Your task to perform on an android device: read, delete, or share a saved page in the chrome app Image 0: 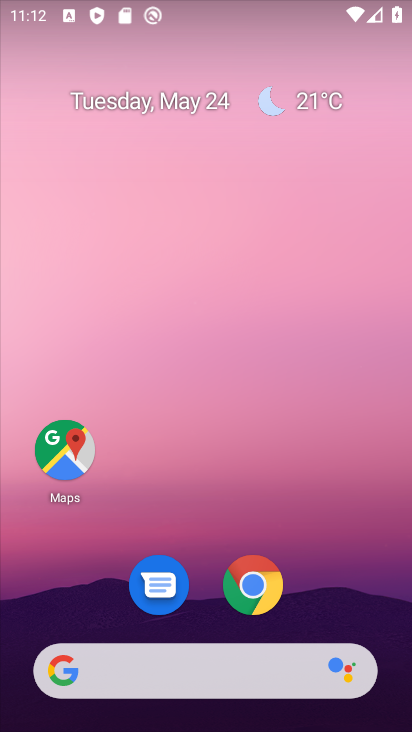
Step 0: click (250, 589)
Your task to perform on an android device: read, delete, or share a saved page in the chrome app Image 1: 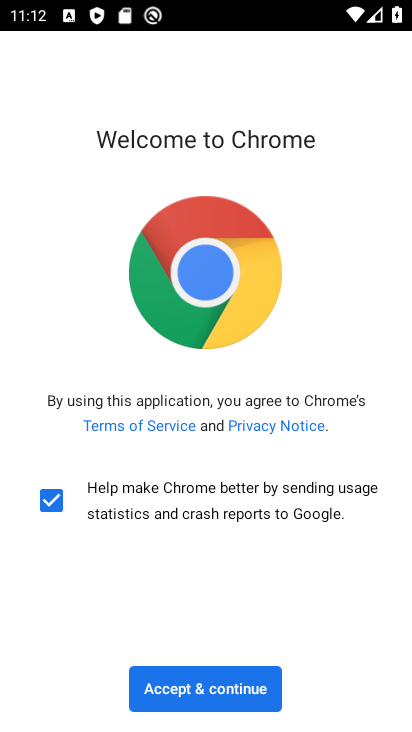
Step 1: click (243, 672)
Your task to perform on an android device: read, delete, or share a saved page in the chrome app Image 2: 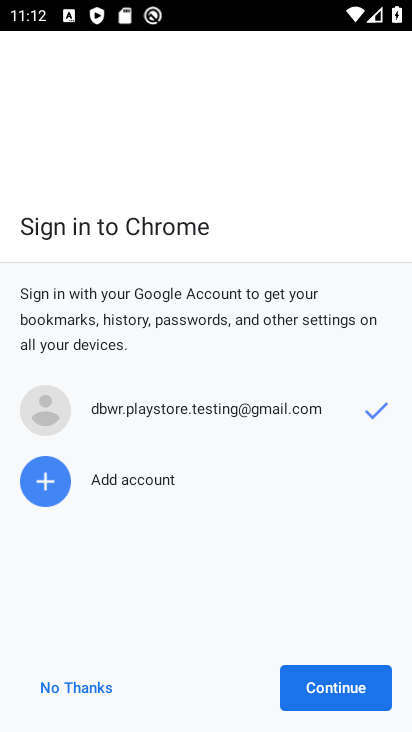
Step 2: click (321, 682)
Your task to perform on an android device: read, delete, or share a saved page in the chrome app Image 3: 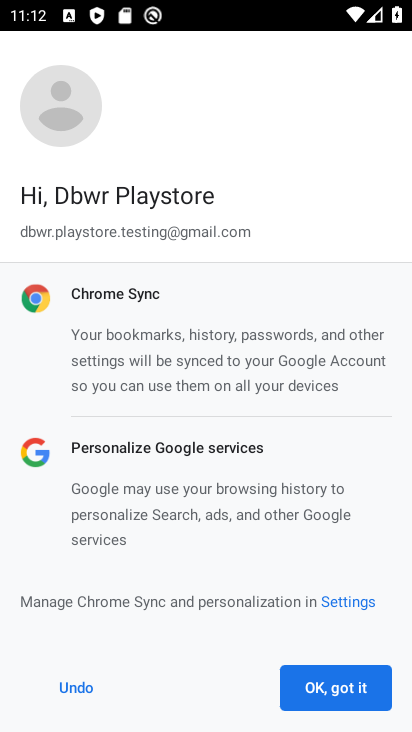
Step 3: click (321, 682)
Your task to perform on an android device: read, delete, or share a saved page in the chrome app Image 4: 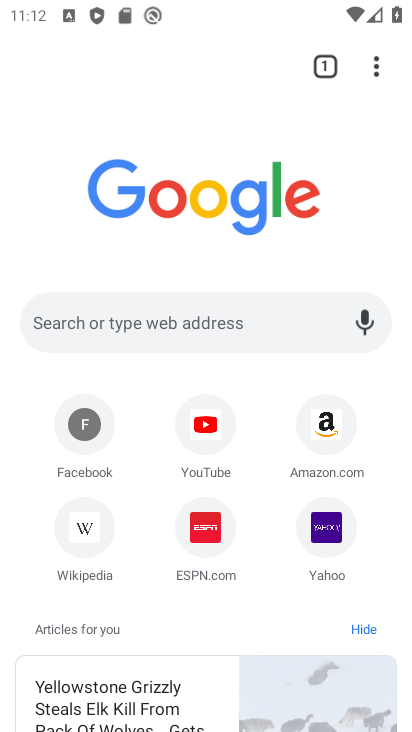
Step 4: click (377, 72)
Your task to perform on an android device: read, delete, or share a saved page in the chrome app Image 5: 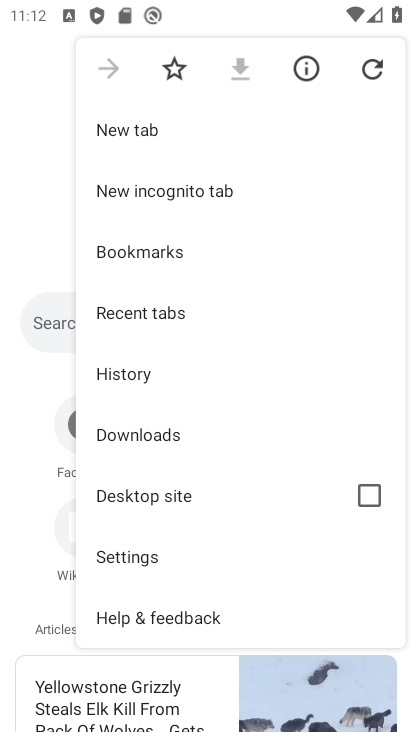
Step 5: click (175, 431)
Your task to perform on an android device: read, delete, or share a saved page in the chrome app Image 6: 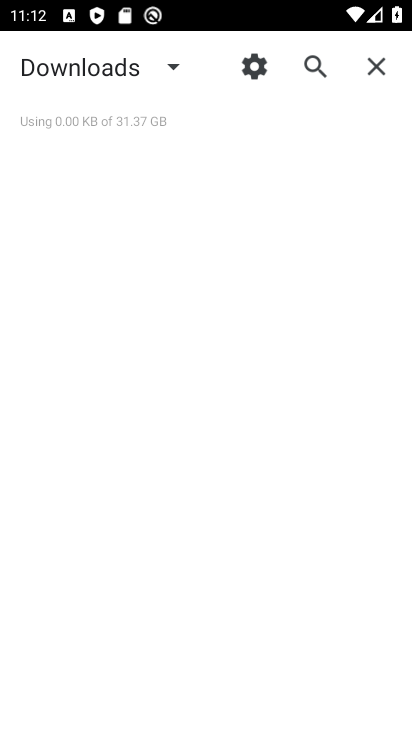
Step 6: task complete